Your task to perform on an android device: Go to location settings Image 0: 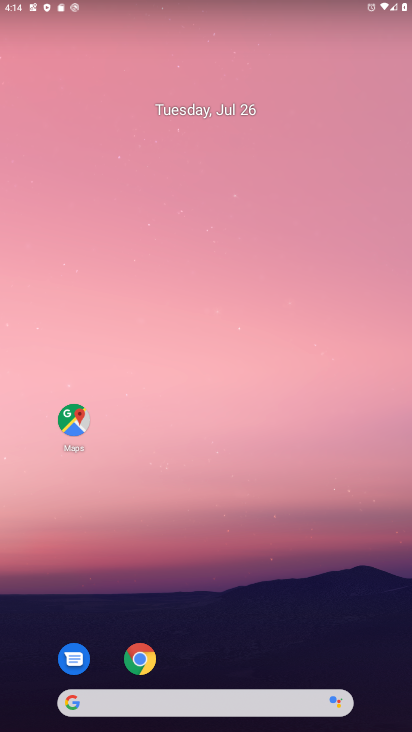
Step 0: press home button
Your task to perform on an android device: Go to location settings Image 1: 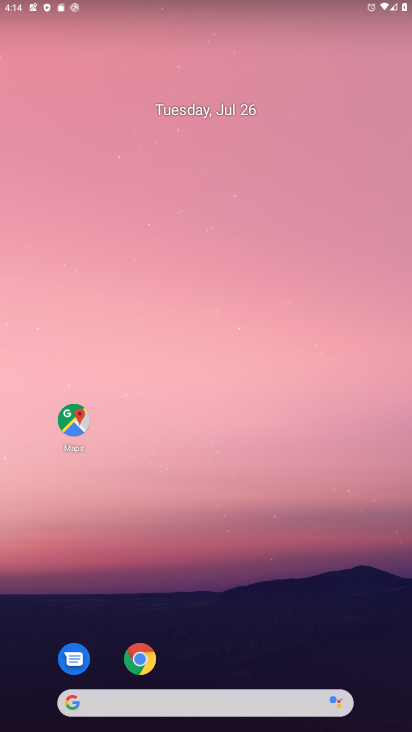
Step 1: drag from (264, 595) to (180, 63)
Your task to perform on an android device: Go to location settings Image 2: 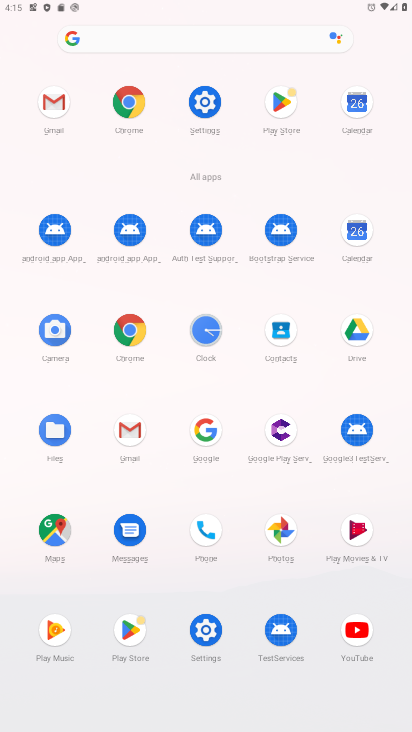
Step 2: click (205, 106)
Your task to perform on an android device: Go to location settings Image 3: 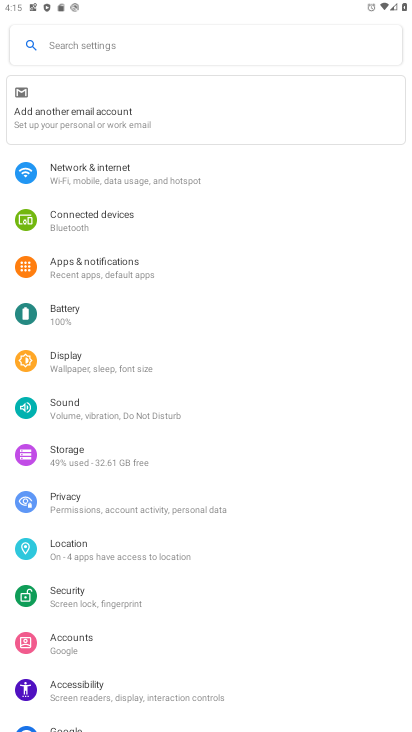
Step 3: click (78, 547)
Your task to perform on an android device: Go to location settings Image 4: 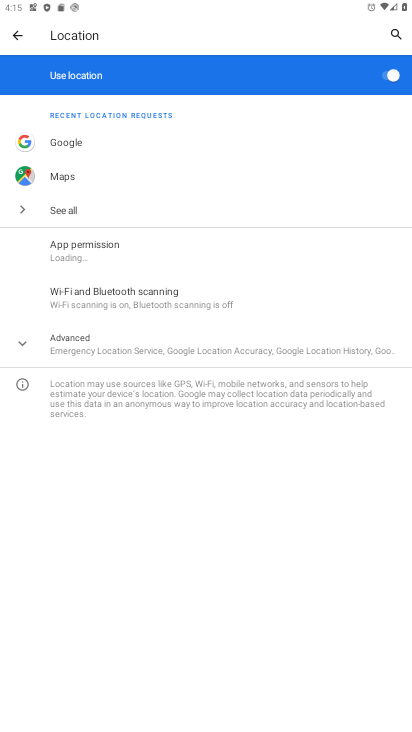
Step 4: task complete